Your task to perform on an android device: turn off sleep mode Image 0: 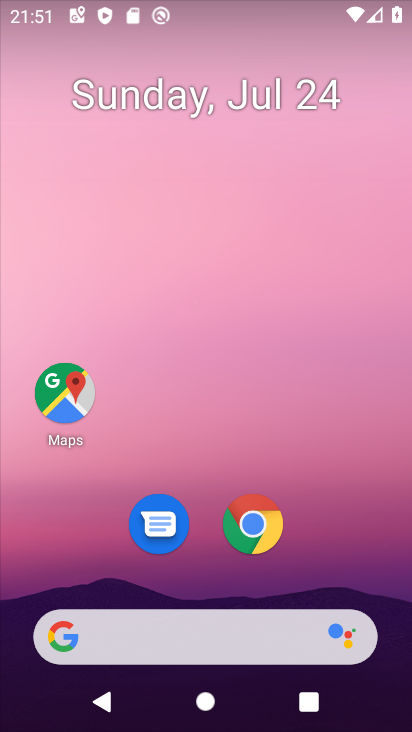
Step 0: press home button
Your task to perform on an android device: turn off sleep mode Image 1: 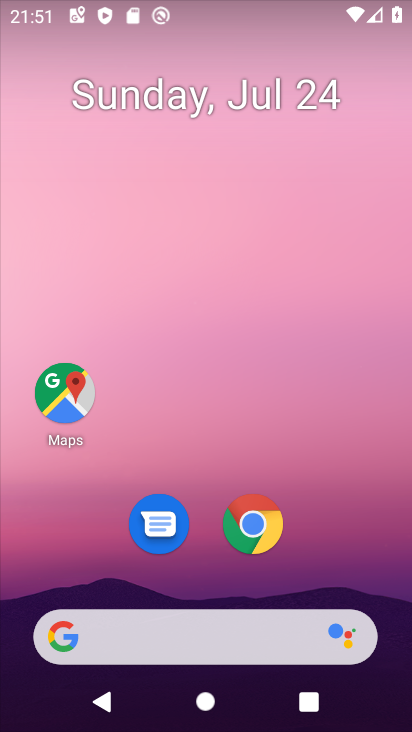
Step 1: drag from (165, 633) to (357, 0)
Your task to perform on an android device: turn off sleep mode Image 2: 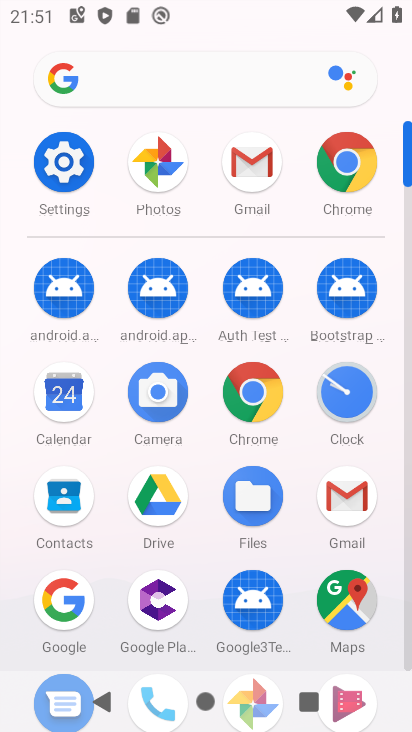
Step 2: click (78, 178)
Your task to perform on an android device: turn off sleep mode Image 3: 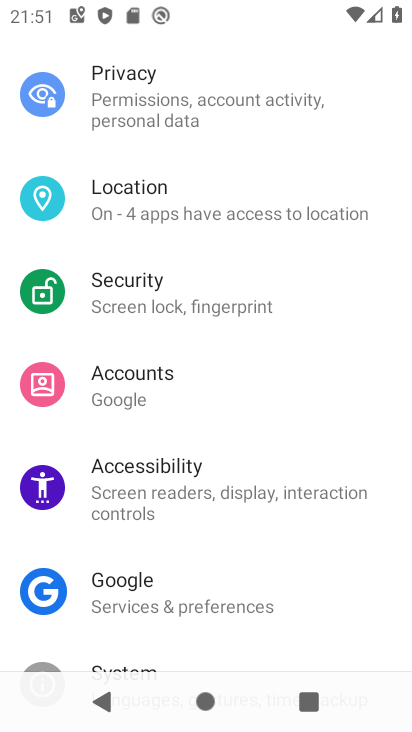
Step 3: drag from (277, 138) to (271, 474)
Your task to perform on an android device: turn off sleep mode Image 4: 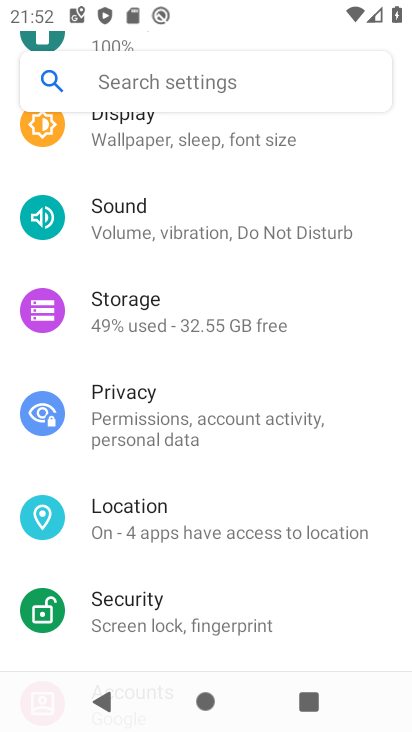
Step 4: click (203, 139)
Your task to perform on an android device: turn off sleep mode Image 5: 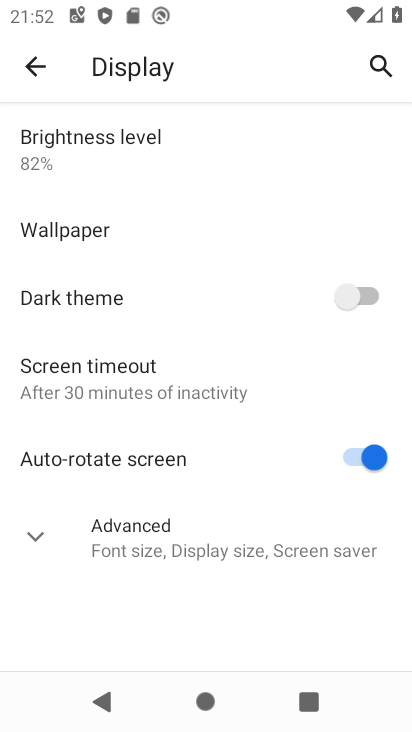
Step 5: task complete